Your task to perform on an android device: turn on priority inbox in the gmail app Image 0: 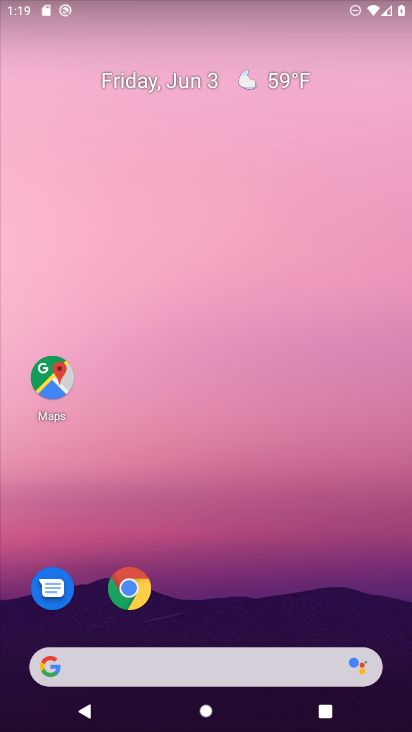
Step 0: drag from (328, 527) to (313, 19)
Your task to perform on an android device: turn on priority inbox in the gmail app Image 1: 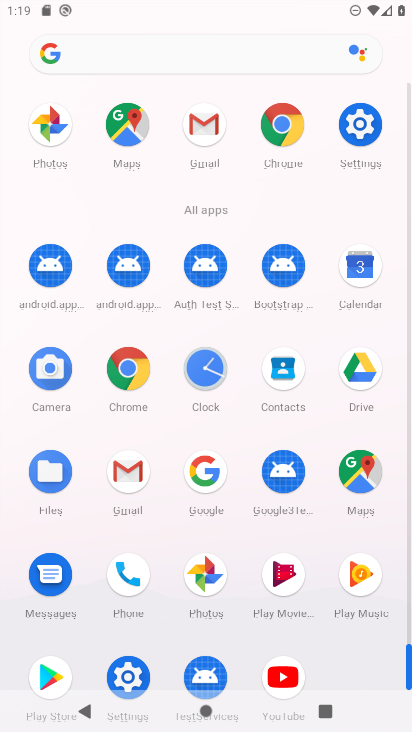
Step 1: drag from (10, 585) to (20, 216)
Your task to perform on an android device: turn on priority inbox in the gmail app Image 2: 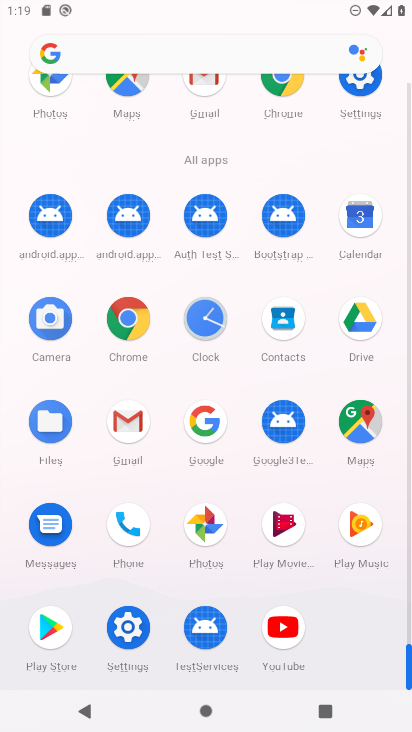
Step 2: click (129, 417)
Your task to perform on an android device: turn on priority inbox in the gmail app Image 3: 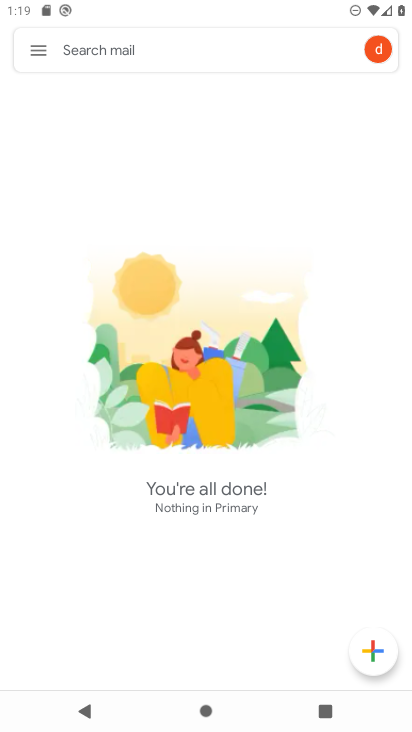
Step 3: click (42, 46)
Your task to perform on an android device: turn on priority inbox in the gmail app Image 4: 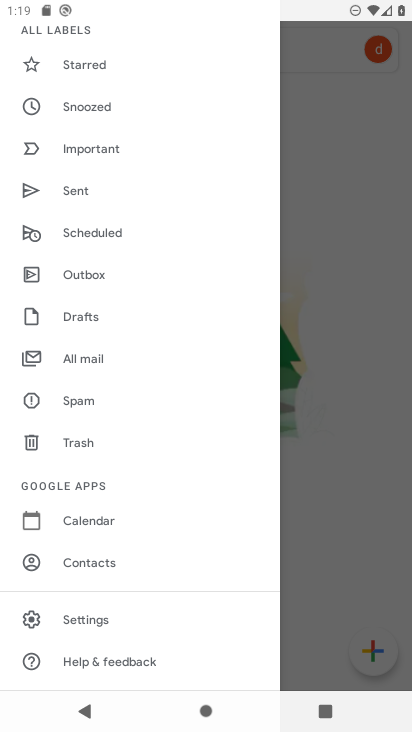
Step 4: click (107, 605)
Your task to perform on an android device: turn on priority inbox in the gmail app Image 5: 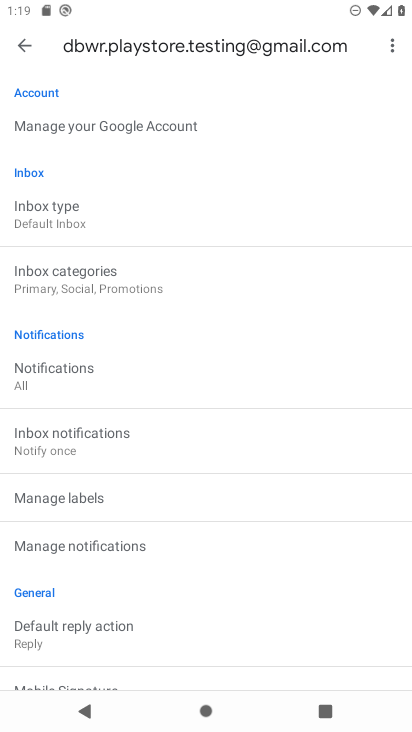
Step 5: drag from (210, 593) to (214, 152)
Your task to perform on an android device: turn on priority inbox in the gmail app Image 6: 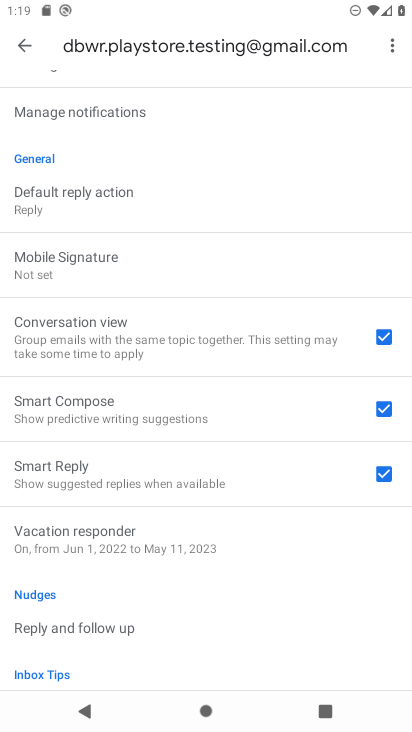
Step 6: drag from (166, 490) to (178, 110)
Your task to perform on an android device: turn on priority inbox in the gmail app Image 7: 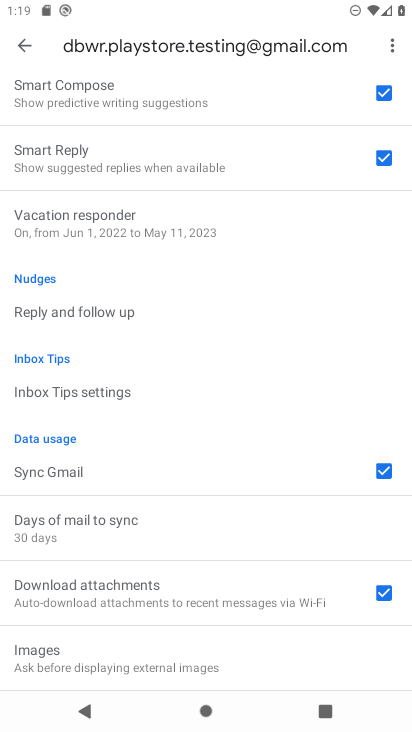
Step 7: drag from (207, 148) to (177, 700)
Your task to perform on an android device: turn on priority inbox in the gmail app Image 8: 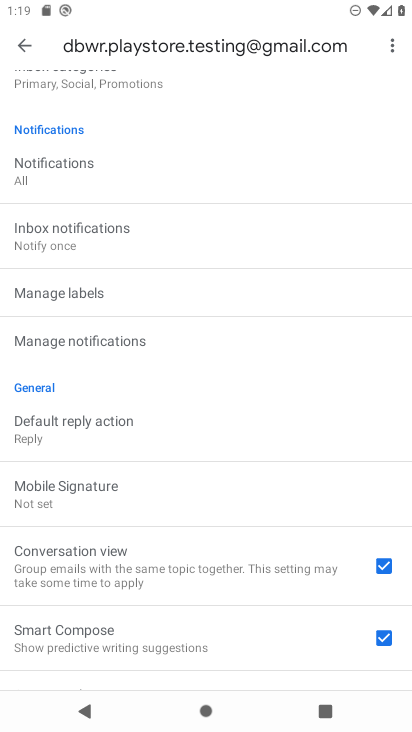
Step 8: drag from (217, 155) to (238, 606)
Your task to perform on an android device: turn on priority inbox in the gmail app Image 9: 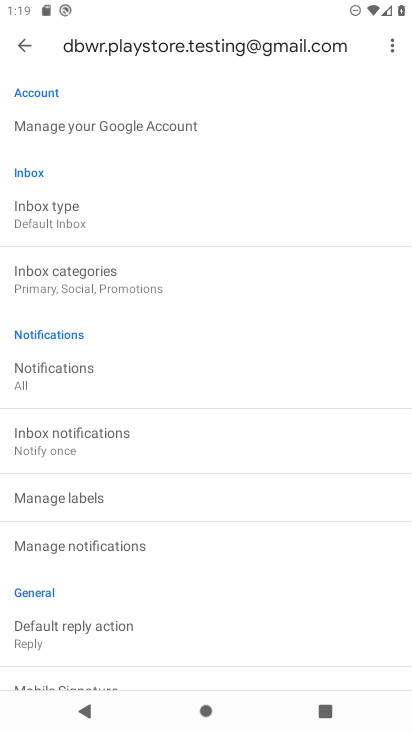
Step 9: drag from (170, 171) to (181, 552)
Your task to perform on an android device: turn on priority inbox in the gmail app Image 10: 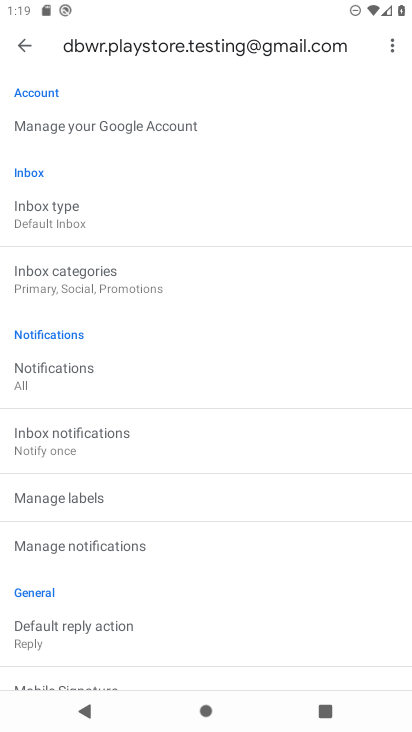
Step 10: click (82, 221)
Your task to perform on an android device: turn on priority inbox in the gmail app Image 11: 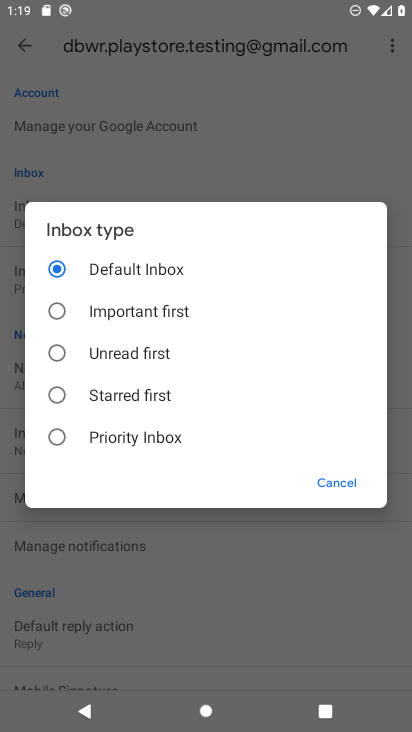
Step 11: click (135, 438)
Your task to perform on an android device: turn on priority inbox in the gmail app Image 12: 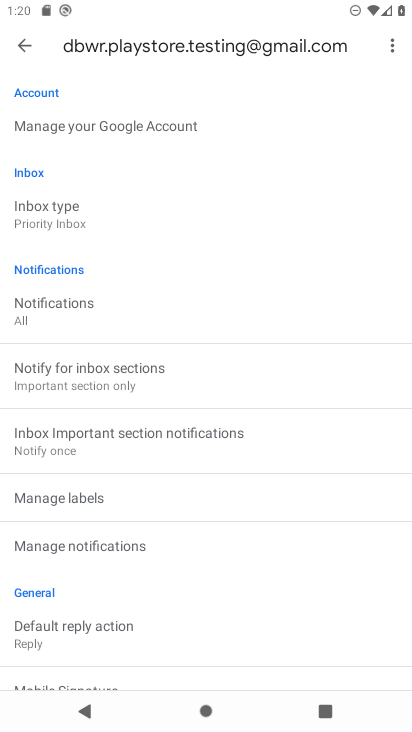
Step 12: task complete